Your task to perform on an android device: delete location history Image 0: 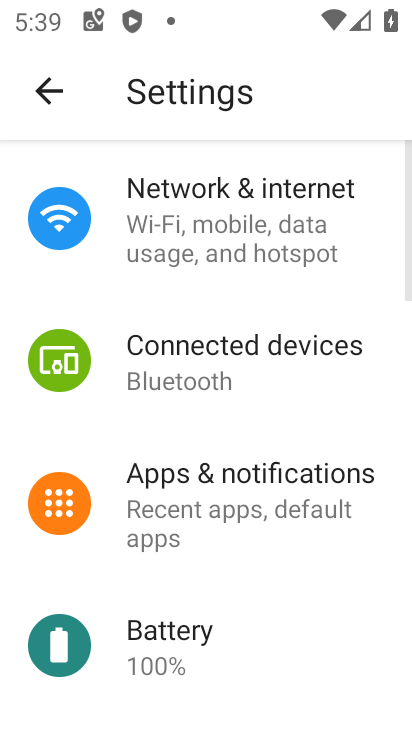
Step 0: press home button
Your task to perform on an android device: delete location history Image 1: 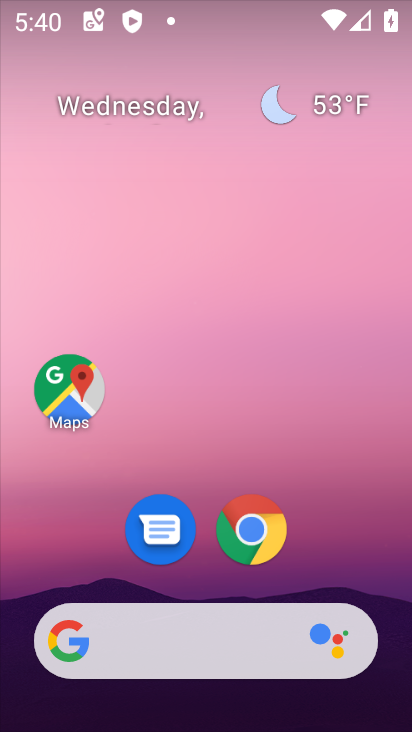
Step 1: drag from (207, 583) to (206, 194)
Your task to perform on an android device: delete location history Image 2: 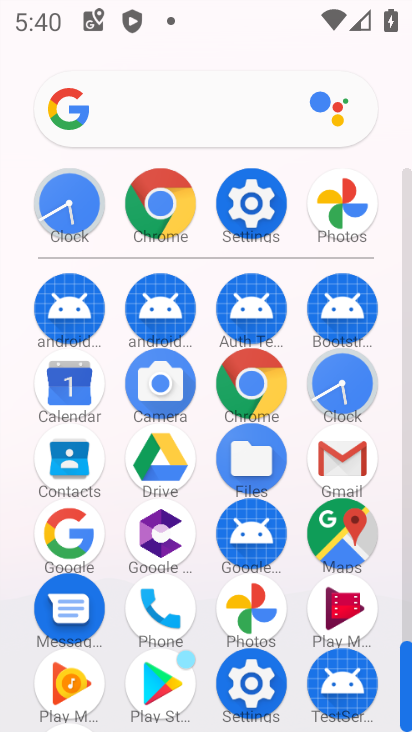
Step 2: click (251, 210)
Your task to perform on an android device: delete location history Image 3: 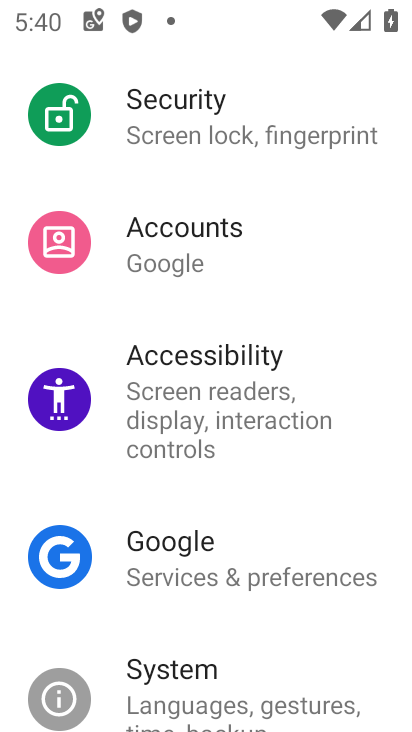
Step 3: drag from (232, 255) to (229, 497)
Your task to perform on an android device: delete location history Image 4: 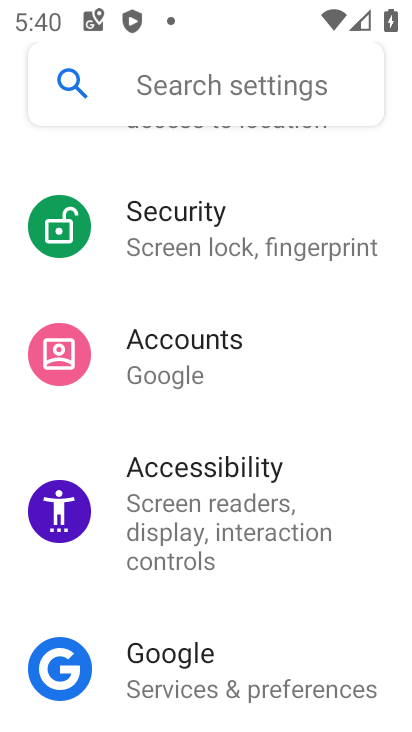
Step 4: drag from (225, 255) to (223, 518)
Your task to perform on an android device: delete location history Image 5: 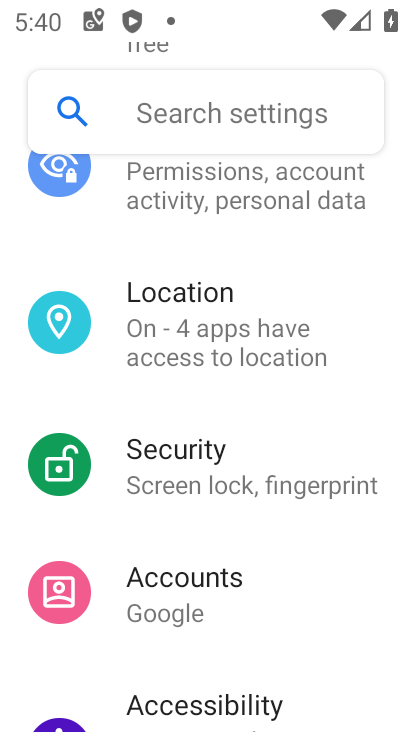
Step 5: click (203, 316)
Your task to perform on an android device: delete location history Image 6: 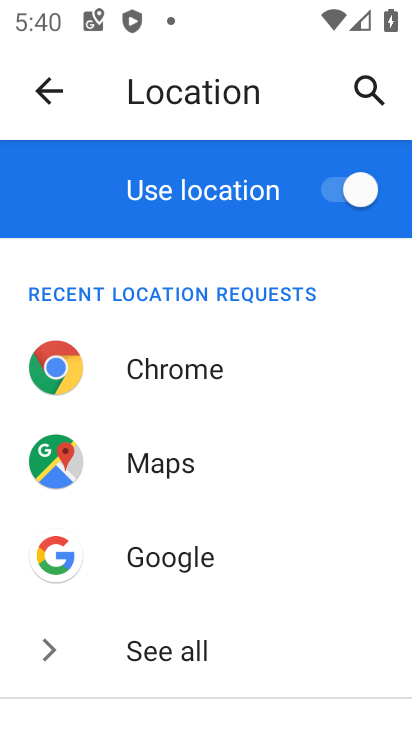
Step 6: drag from (220, 635) to (212, 345)
Your task to perform on an android device: delete location history Image 7: 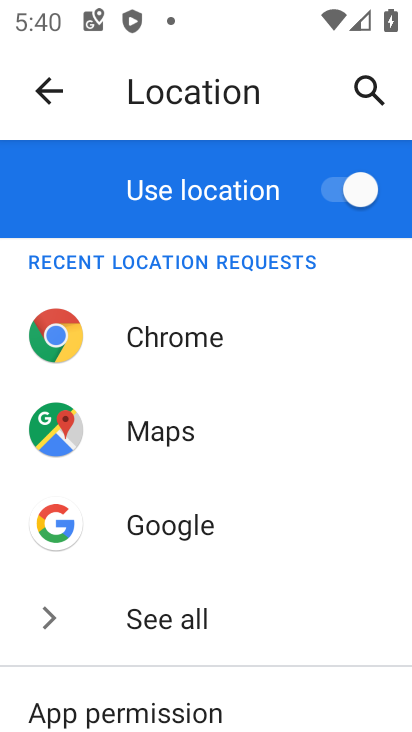
Step 7: drag from (207, 593) to (206, 483)
Your task to perform on an android device: delete location history Image 8: 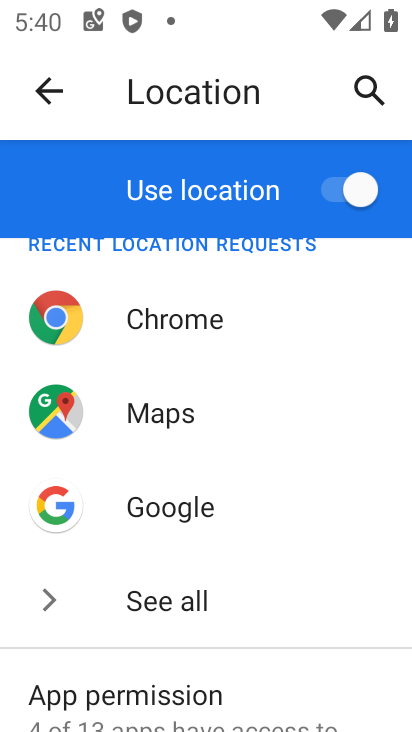
Step 8: drag from (213, 684) to (225, 461)
Your task to perform on an android device: delete location history Image 9: 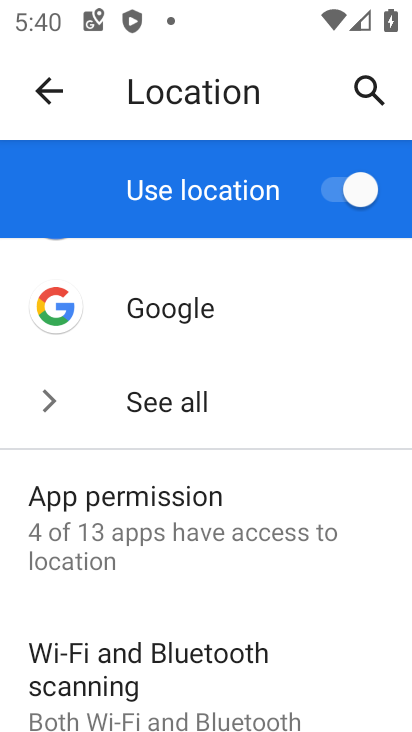
Step 9: drag from (202, 680) to (217, 451)
Your task to perform on an android device: delete location history Image 10: 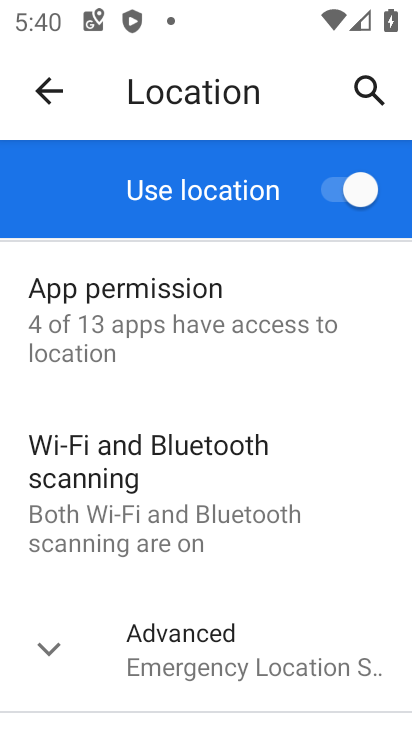
Step 10: click (207, 658)
Your task to perform on an android device: delete location history Image 11: 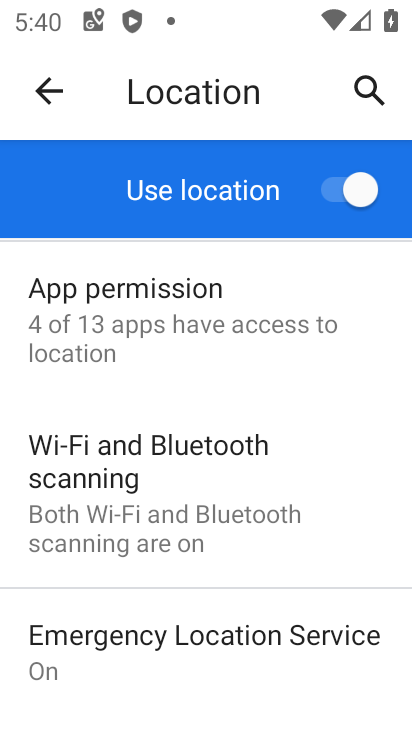
Step 11: drag from (202, 602) to (204, 342)
Your task to perform on an android device: delete location history Image 12: 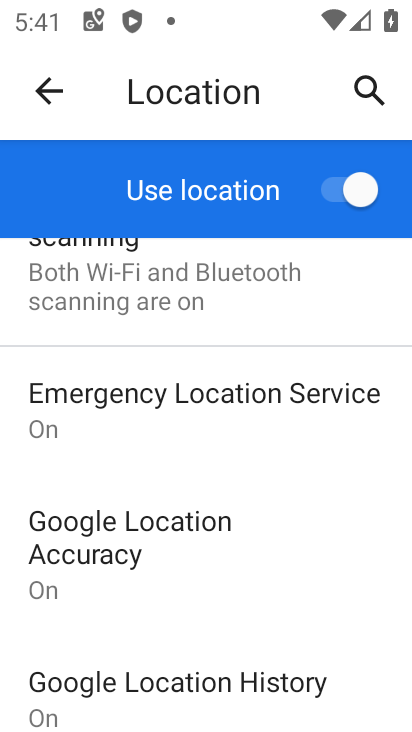
Step 12: click (214, 706)
Your task to perform on an android device: delete location history Image 13: 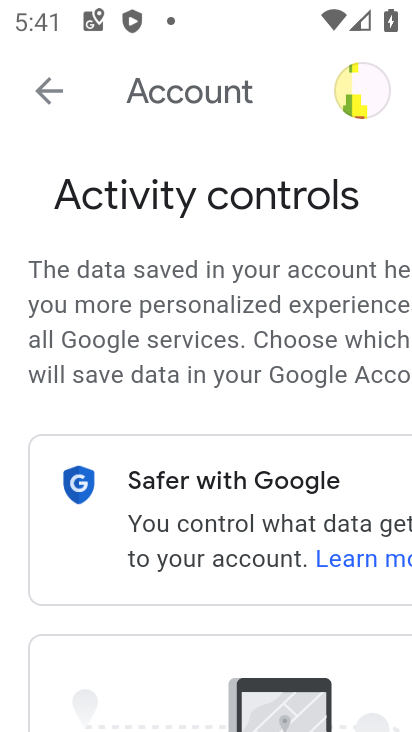
Step 13: drag from (171, 625) to (172, 317)
Your task to perform on an android device: delete location history Image 14: 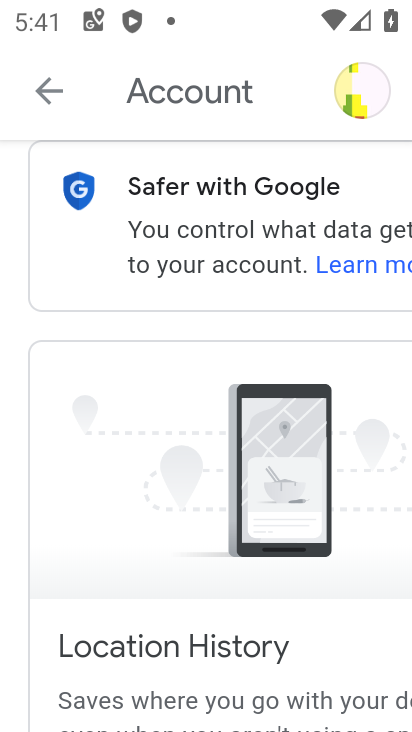
Step 14: drag from (257, 660) to (253, 342)
Your task to perform on an android device: delete location history Image 15: 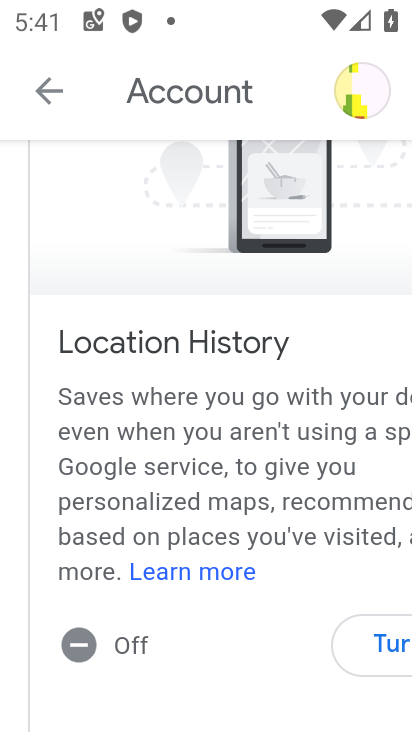
Step 15: drag from (253, 608) to (247, 300)
Your task to perform on an android device: delete location history Image 16: 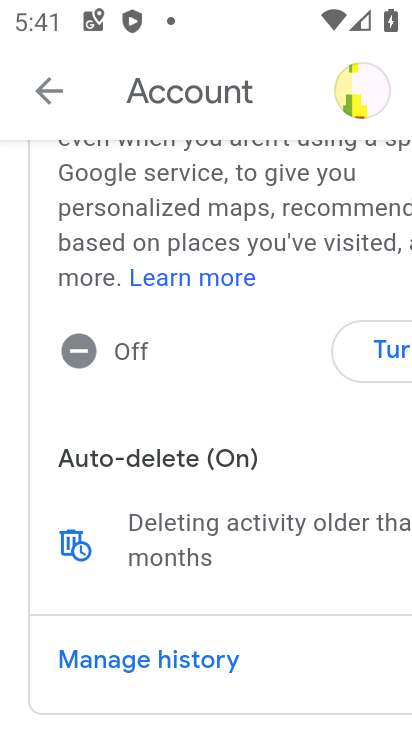
Step 16: click (170, 654)
Your task to perform on an android device: delete location history Image 17: 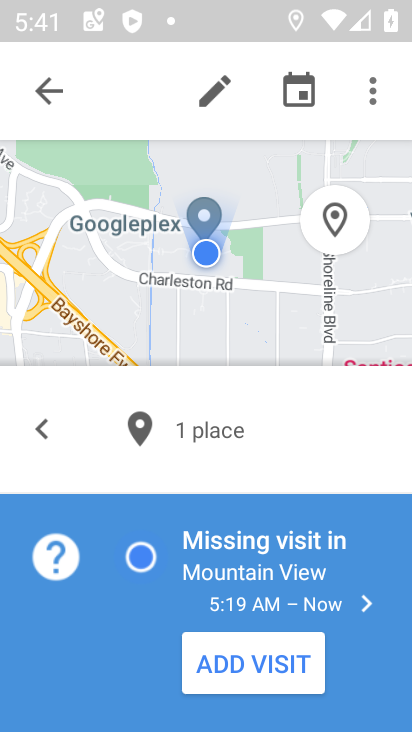
Step 17: click (378, 88)
Your task to perform on an android device: delete location history Image 18: 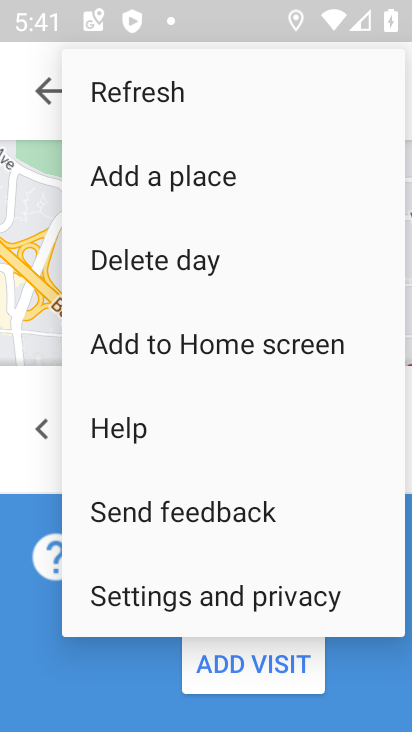
Step 18: click (234, 598)
Your task to perform on an android device: delete location history Image 19: 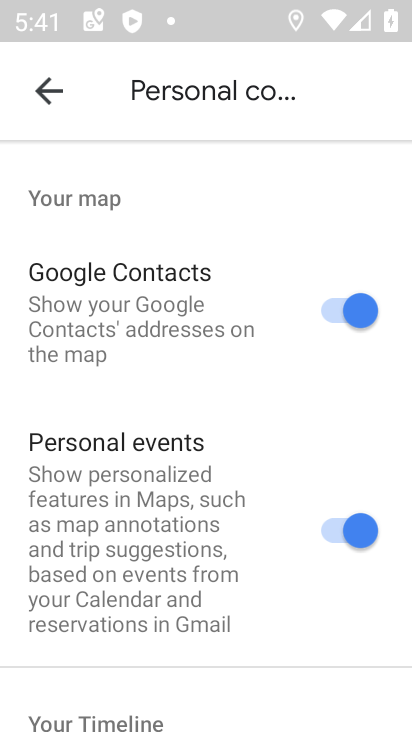
Step 19: drag from (196, 634) to (182, 311)
Your task to perform on an android device: delete location history Image 20: 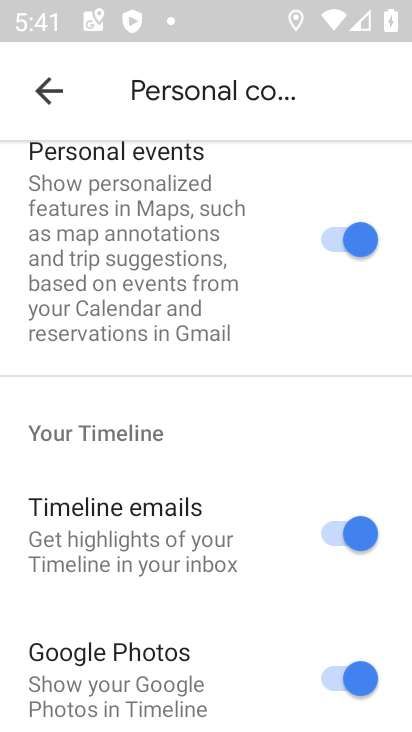
Step 20: drag from (209, 657) to (195, 323)
Your task to perform on an android device: delete location history Image 21: 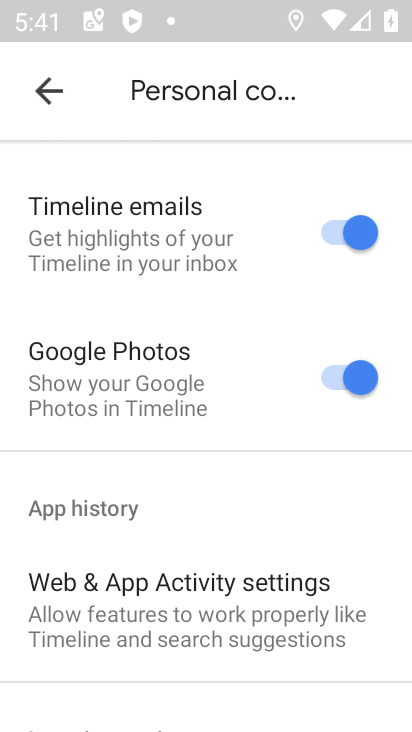
Step 21: drag from (177, 612) to (175, 130)
Your task to perform on an android device: delete location history Image 22: 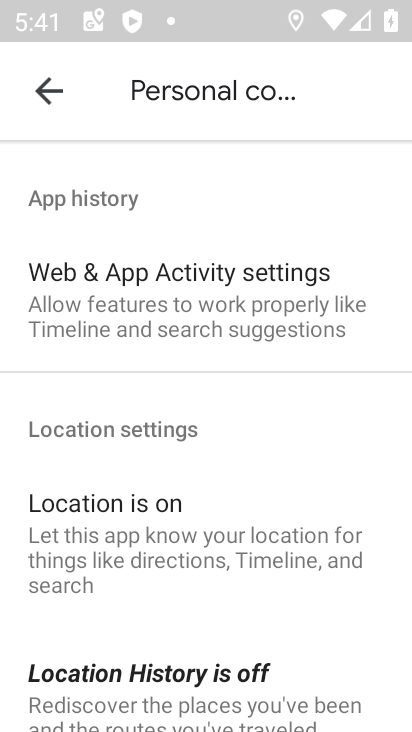
Step 22: drag from (234, 598) to (230, 239)
Your task to perform on an android device: delete location history Image 23: 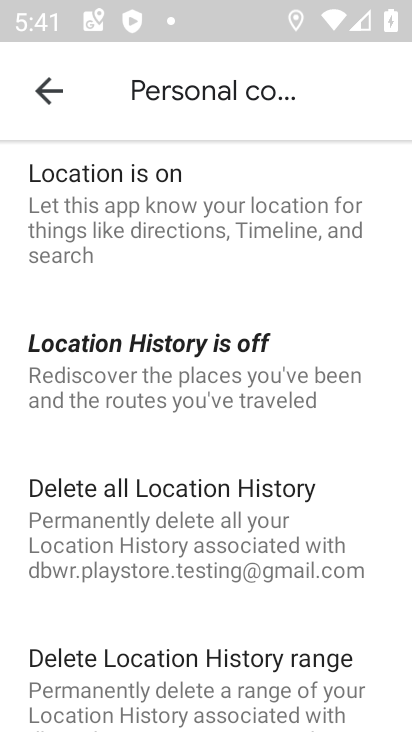
Step 23: click (211, 543)
Your task to perform on an android device: delete location history Image 24: 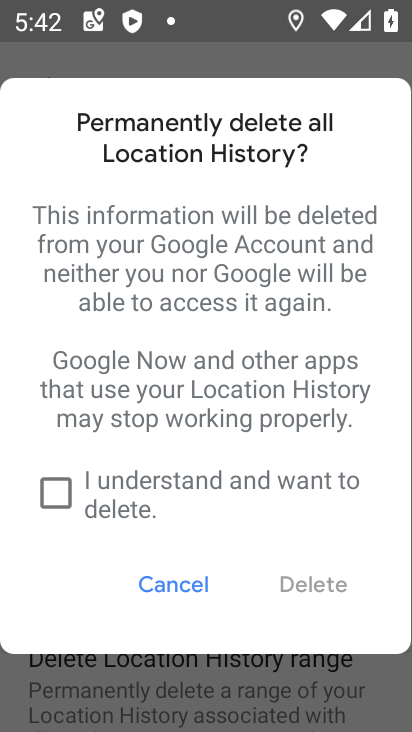
Step 24: click (64, 488)
Your task to perform on an android device: delete location history Image 25: 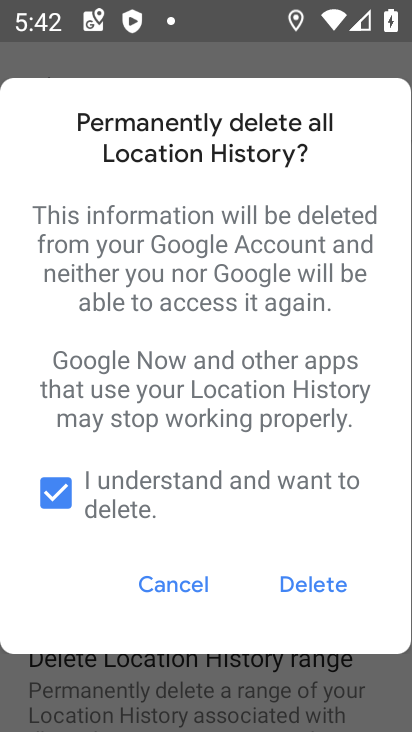
Step 25: click (324, 588)
Your task to perform on an android device: delete location history Image 26: 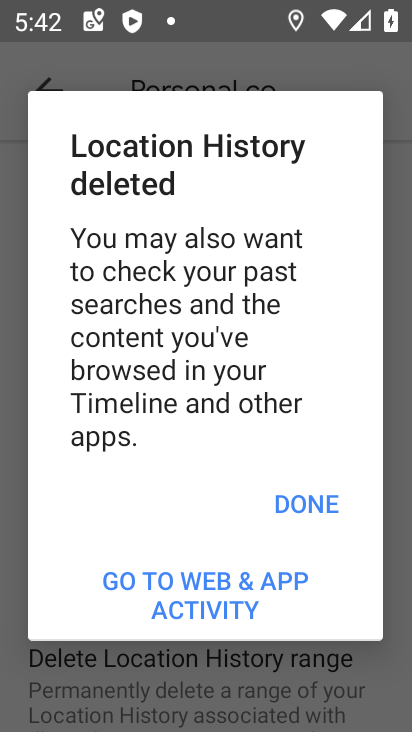
Step 26: click (290, 509)
Your task to perform on an android device: delete location history Image 27: 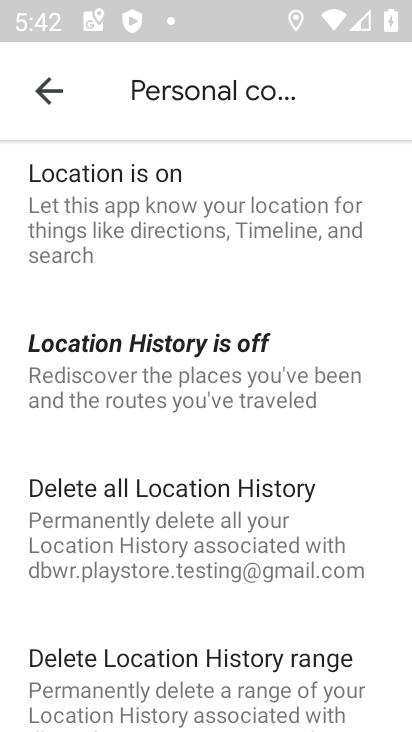
Step 27: task complete